Your task to perform on an android device: Go to wifi settings Image 0: 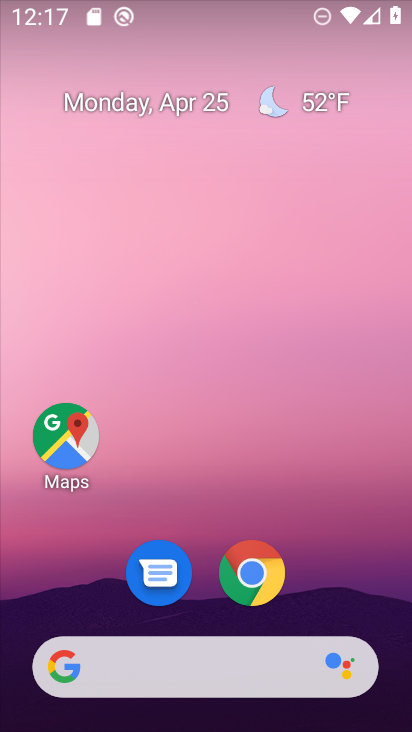
Step 0: drag from (224, 726) to (205, 155)
Your task to perform on an android device: Go to wifi settings Image 1: 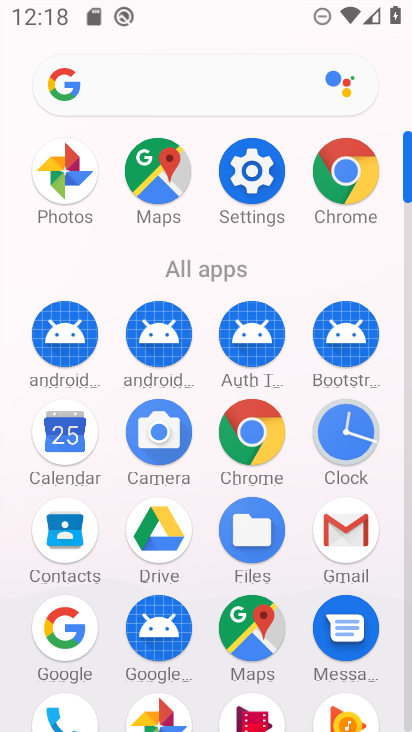
Step 1: click (249, 170)
Your task to perform on an android device: Go to wifi settings Image 2: 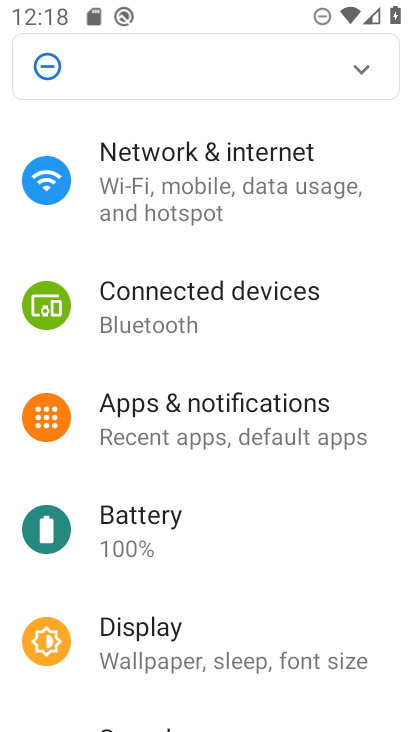
Step 2: click (221, 181)
Your task to perform on an android device: Go to wifi settings Image 3: 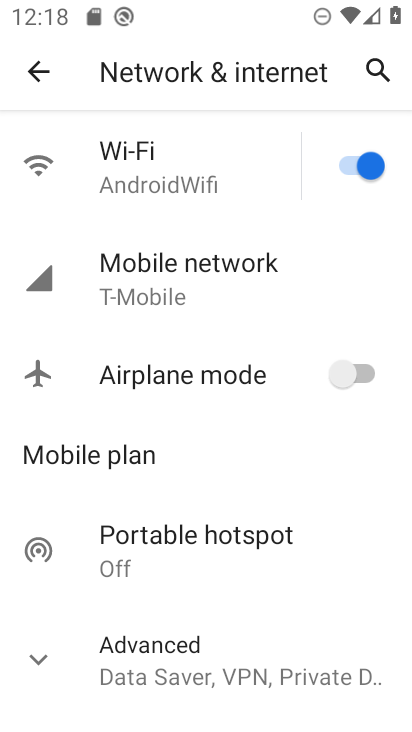
Step 3: click (130, 168)
Your task to perform on an android device: Go to wifi settings Image 4: 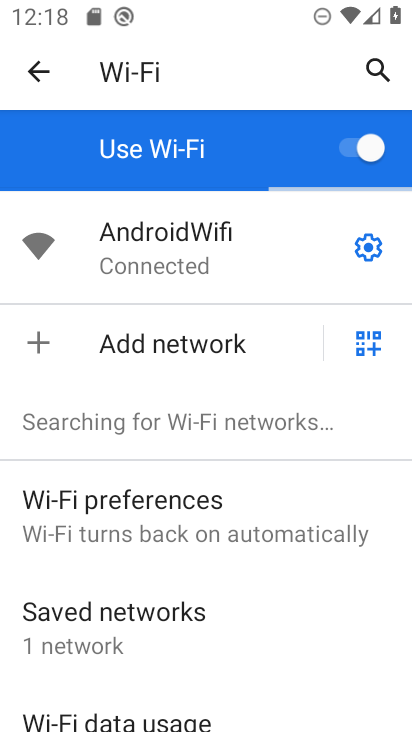
Step 4: task complete